Your task to perform on an android device: see tabs open on other devices in the chrome app Image 0: 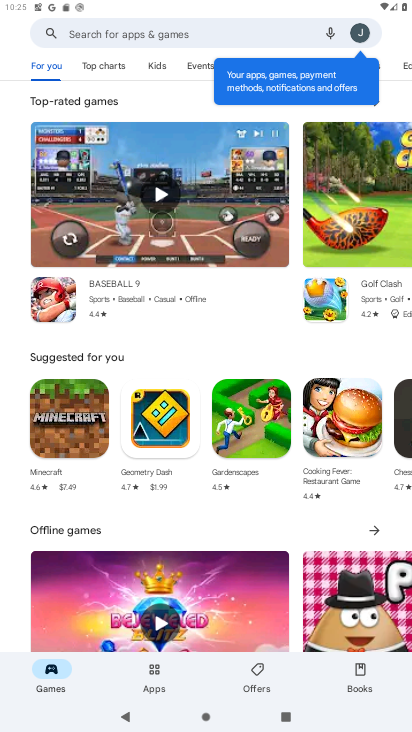
Step 0: press home button
Your task to perform on an android device: see tabs open on other devices in the chrome app Image 1: 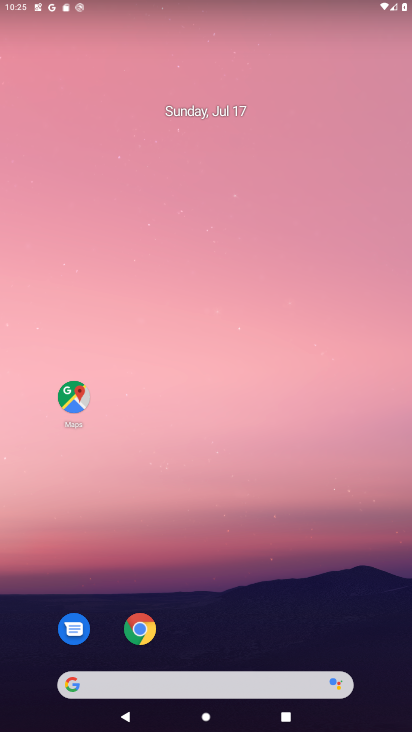
Step 1: click (141, 631)
Your task to perform on an android device: see tabs open on other devices in the chrome app Image 2: 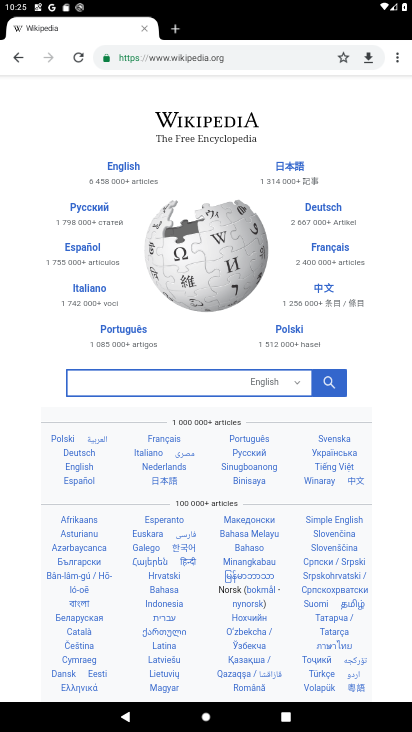
Step 2: click (396, 59)
Your task to perform on an android device: see tabs open on other devices in the chrome app Image 3: 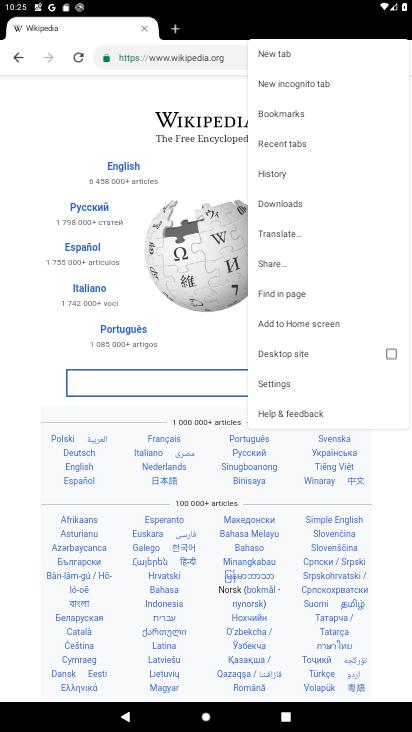
Step 3: click (299, 144)
Your task to perform on an android device: see tabs open on other devices in the chrome app Image 4: 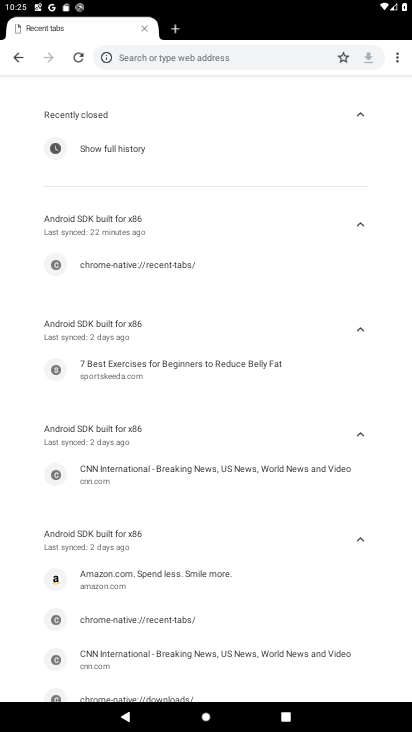
Step 4: task complete